Your task to perform on an android device: What's the weather today? Image 0: 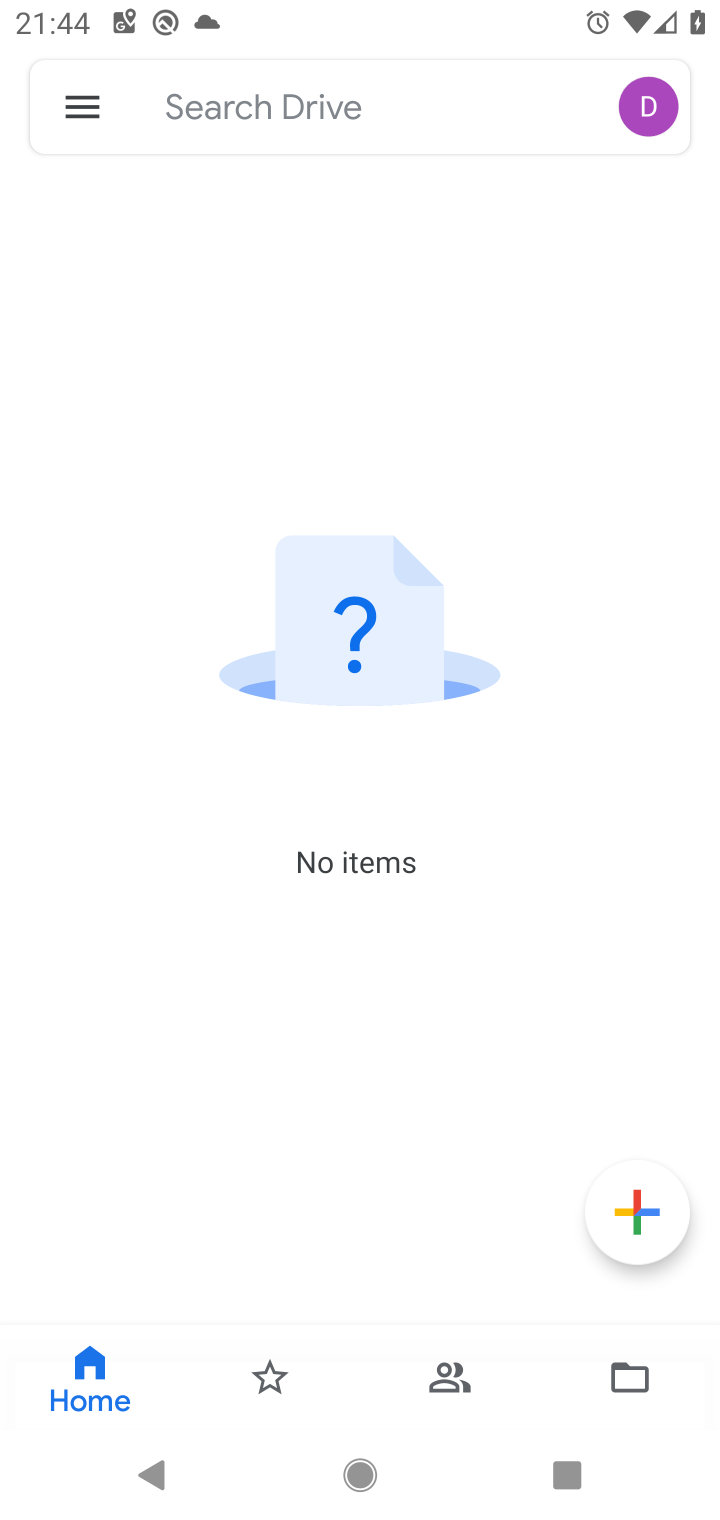
Step 0: press home button
Your task to perform on an android device: What's the weather today? Image 1: 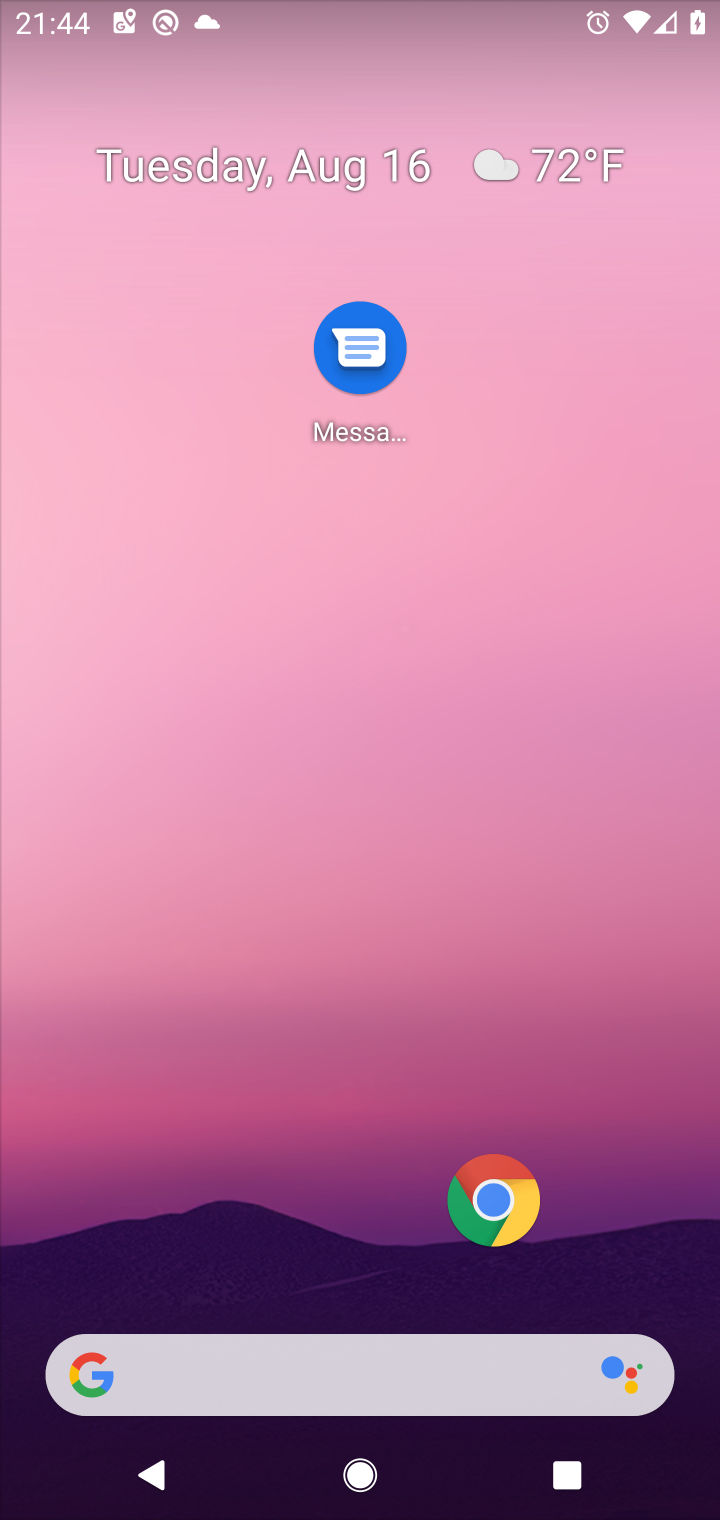
Step 1: click (182, 1379)
Your task to perform on an android device: What's the weather today? Image 2: 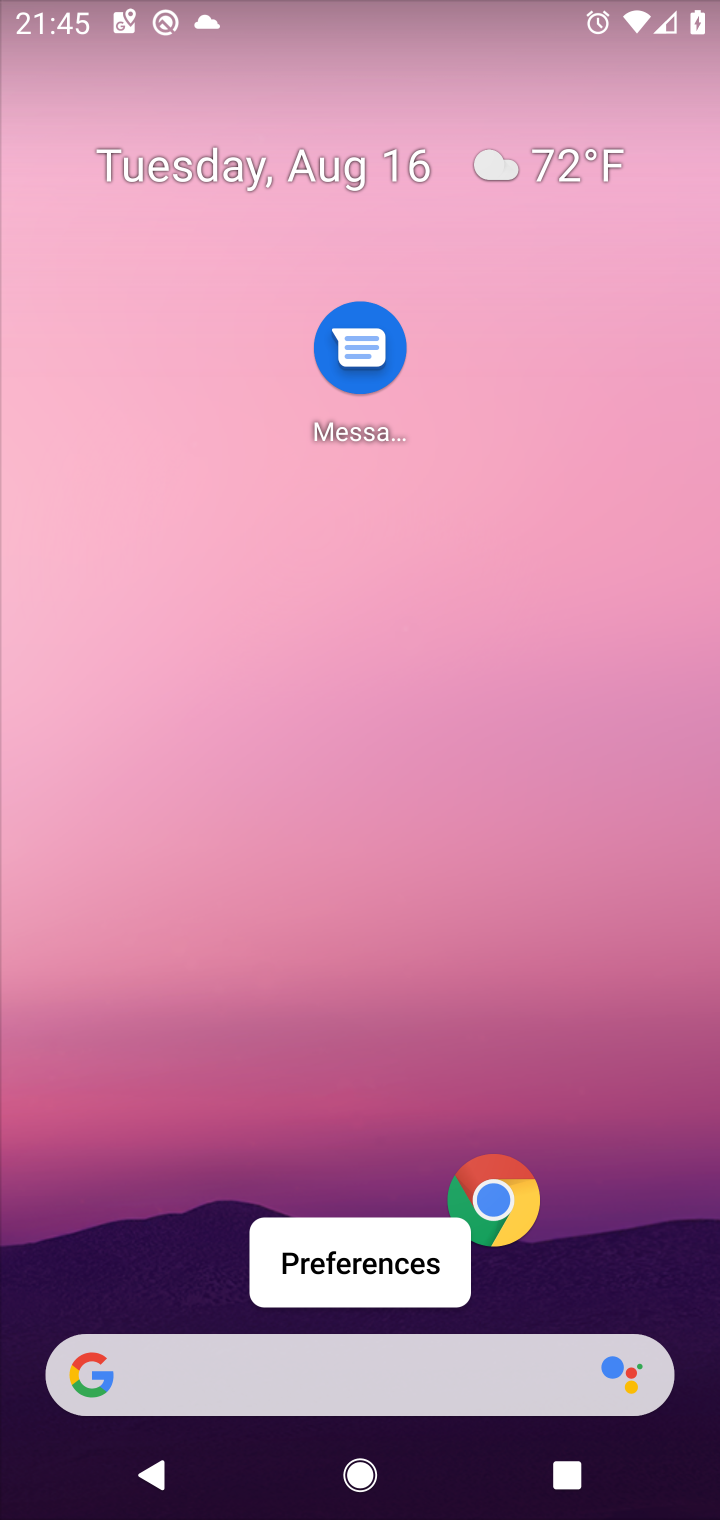
Step 2: click (182, 1379)
Your task to perform on an android device: What's the weather today? Image 3: 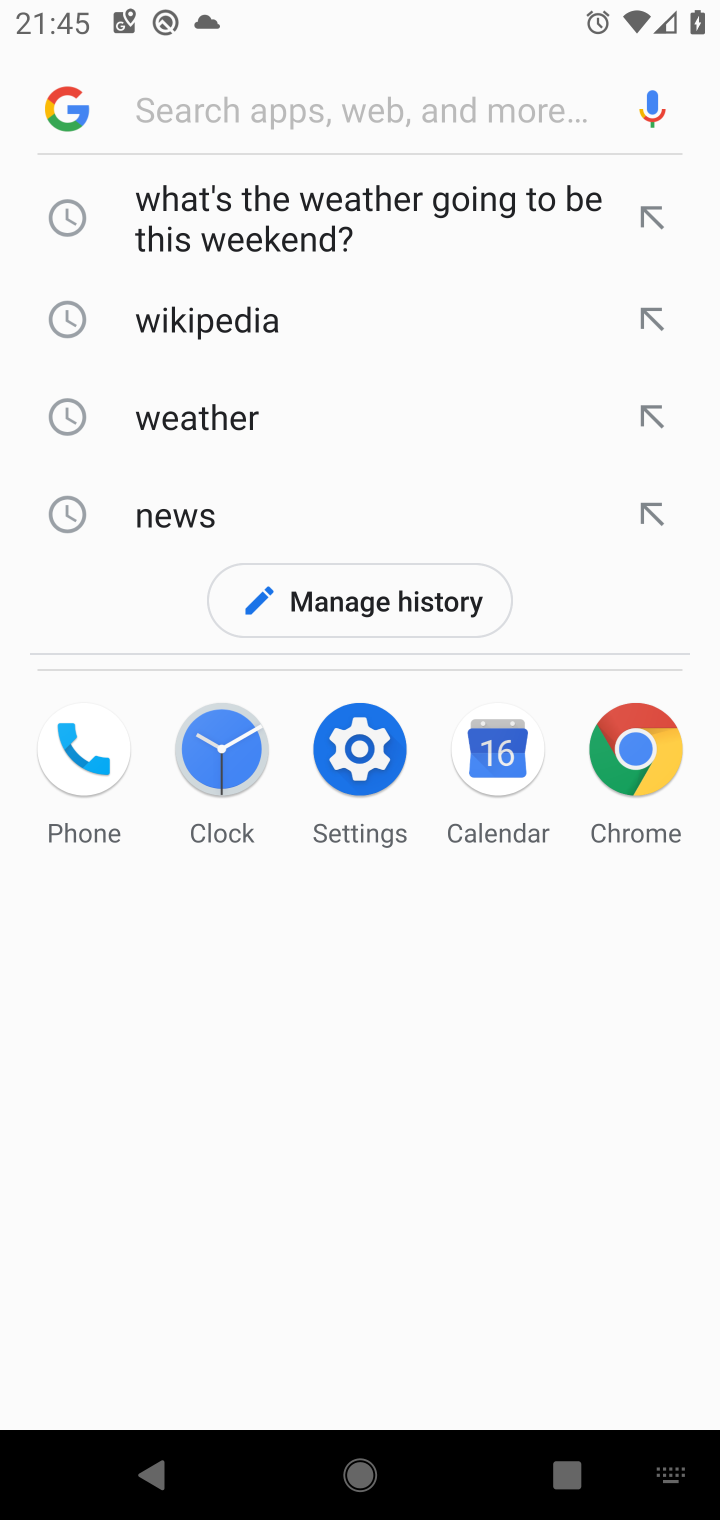
Step 3: type "What's the weather today?"
Your task to perform on an android device: What's the weather today? Image 4: 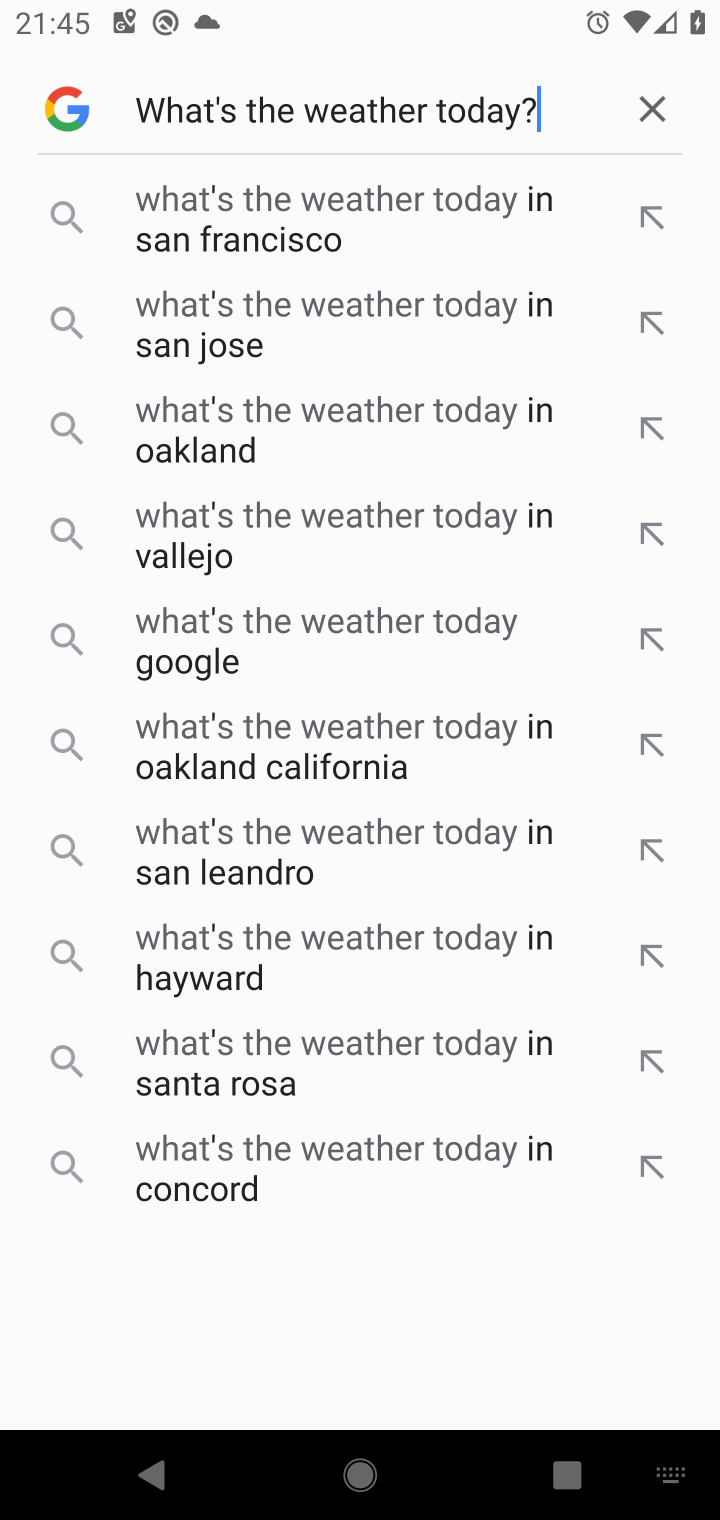
Step 4: type ""
Your task to perform on an android device: What's the weather today? Image 5: 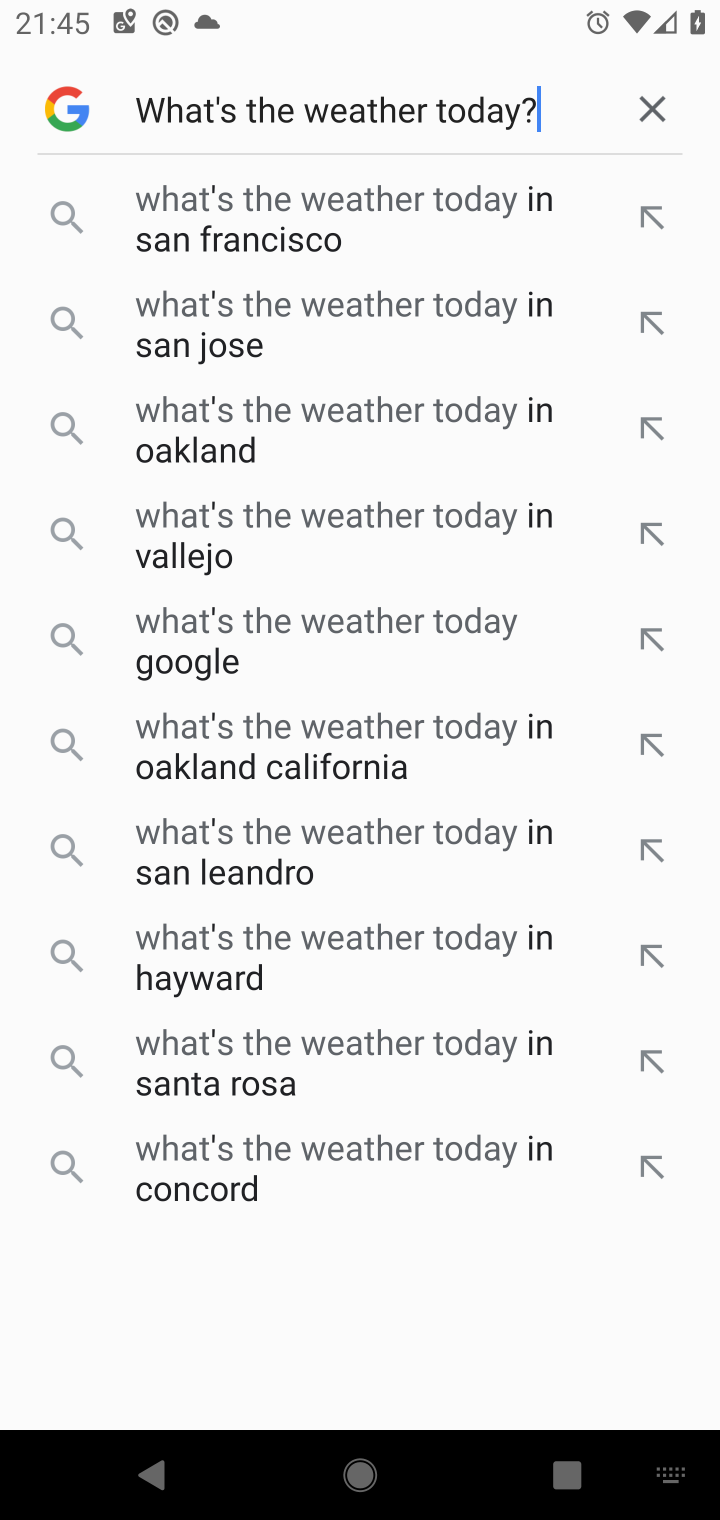
Step 5: type ""
Your task to perform on an android device: What's the weather today? Image 6: 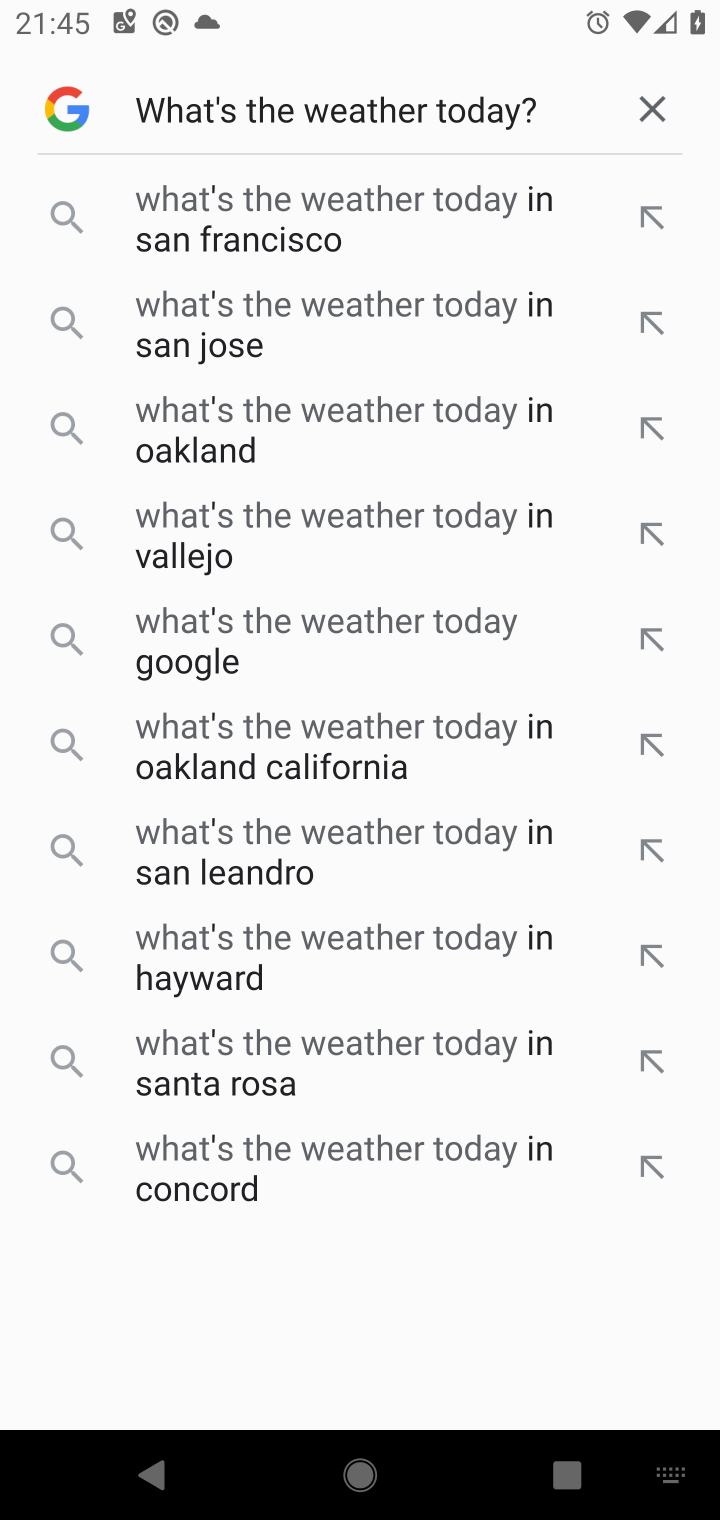
Step 6: task complete